Your task to perform on an android device: set the timer Image 0: 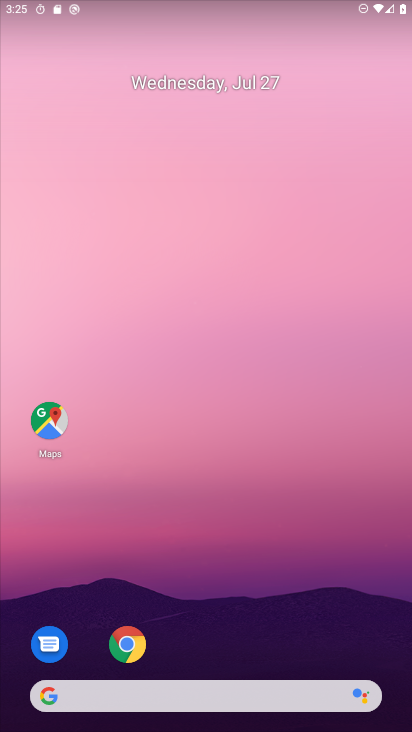
Step 0: drag from (224, 639) to (277, 95)
Your task to perform on an android device: set the timer Image 1: 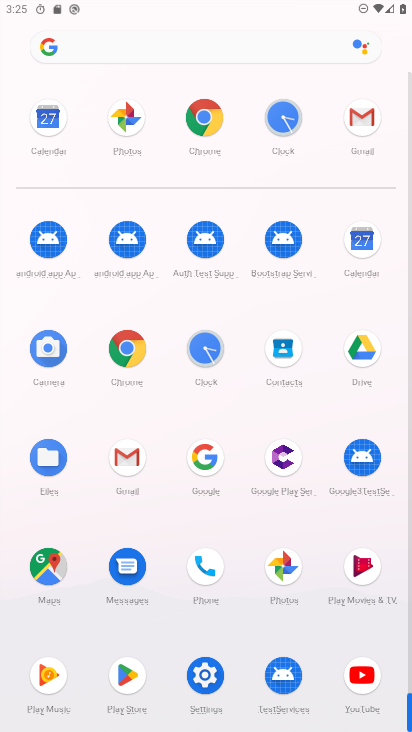
Step 1: click (200, 363)
Your task to perform on an android device: set the timer Image 2: 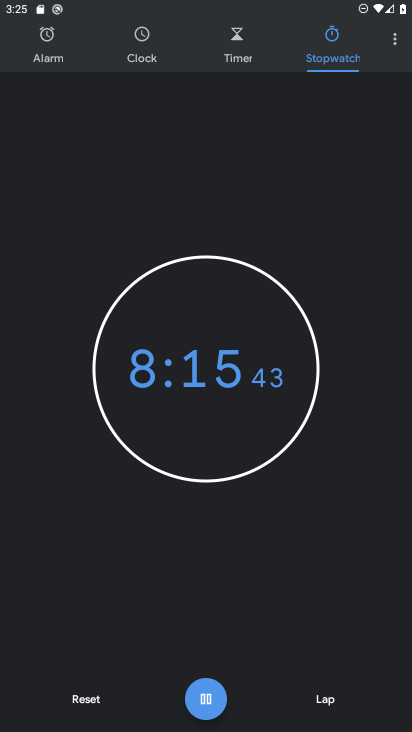
Step 2: click (93, 700)
Your task to perform on an android device: set the timer Image 3: 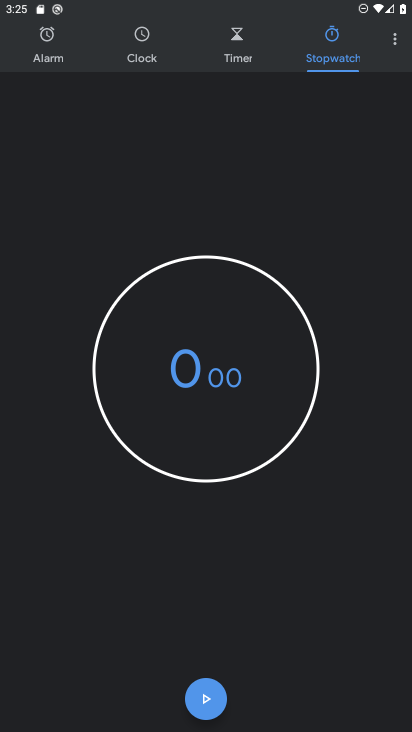
Step 3: click (242, 51)
Your task to perform on an android device: set the timer Image 4: 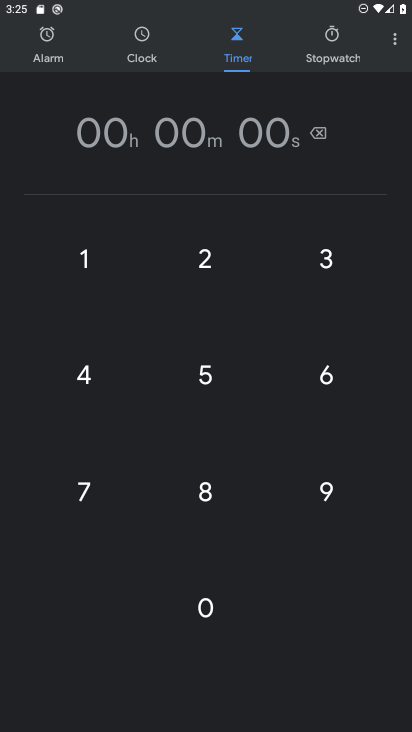
Step 4: click (87, 479)
Your task to perform on an android device: set the timer Image 5: 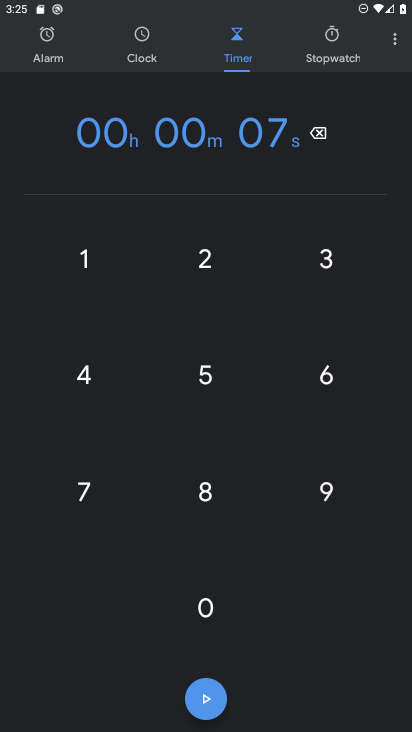
Step 5: click (199, 366)
Your task to perform on an android device: set the timer Image 6: 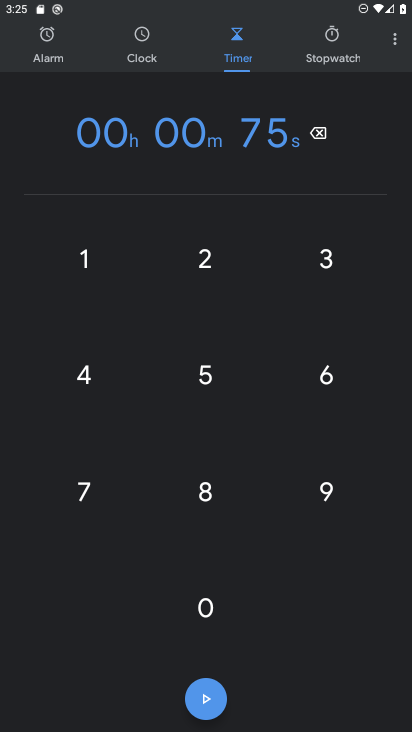
Step 6: click (333, 487)
Your task to perform on an android device: set the timer Image 7: 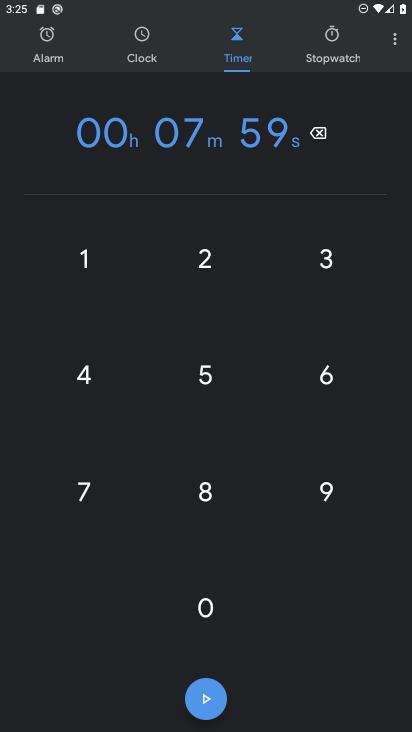
Step 7: click (193, 706)
Your task to perform on an android device: set the timer Image 8: 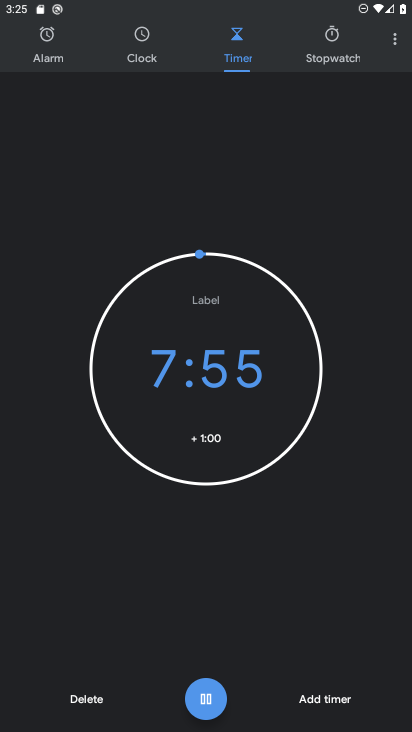
Step 8: task complete